Your task to perform on an android device: check battery use Image 0: 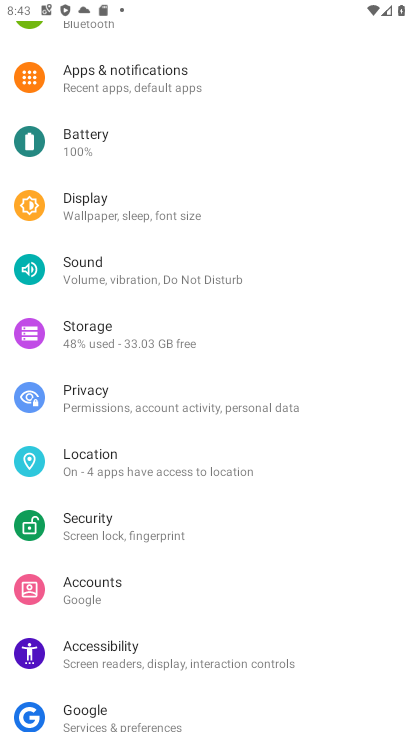
Step 0: press home button
Your task to perform on an android device: check battery use Image 1: 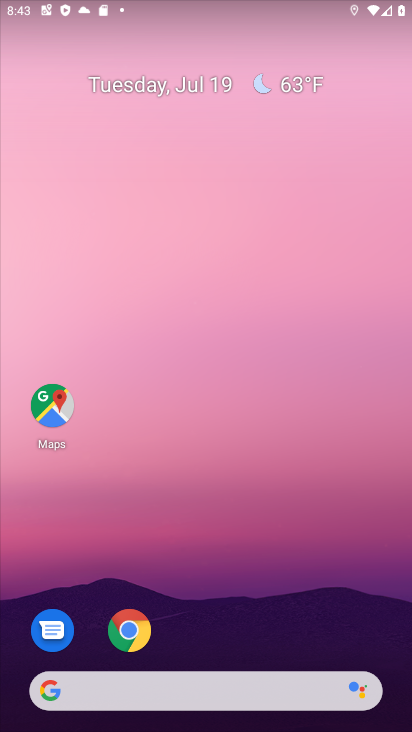
Step 1: drag from (187, 697) to (193, 229)
Your task to perform on an android device: check battery use Image 2: 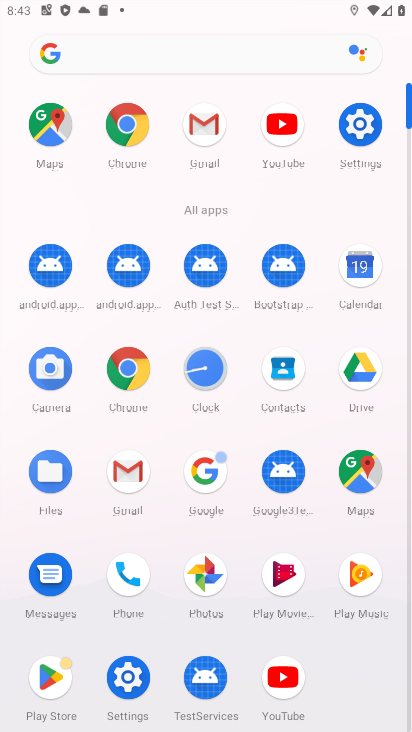
Step 2: click (359, 125)
Your task to perform on an android device: check battery use Image 3: 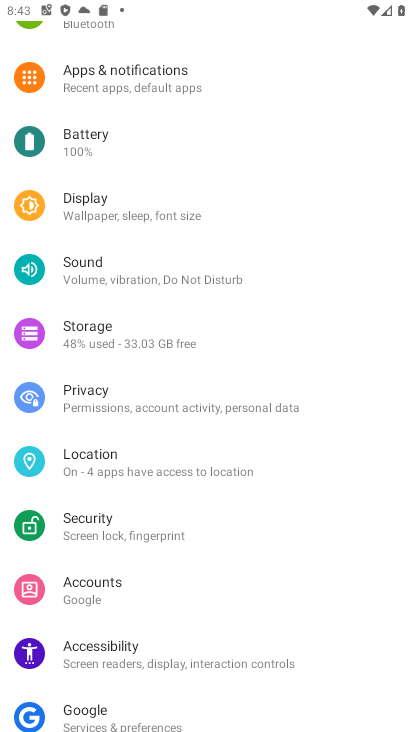
Step 3: click (74, 145)
Your task to perform on an android device: check battery use Image 4: 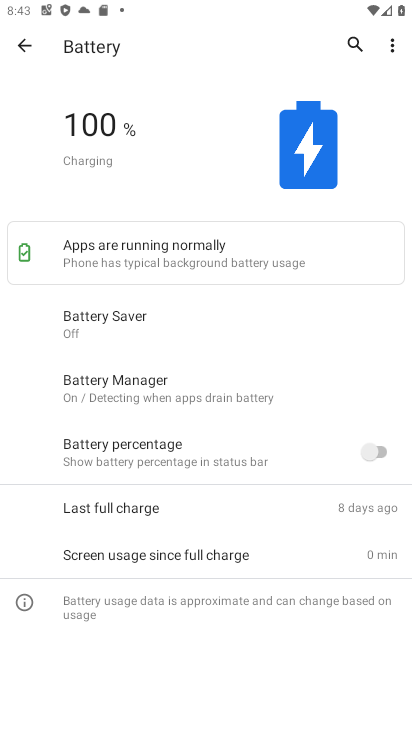
Step 4: click (394, 42)
Your task to perform on an android device: check battery use Image 5: 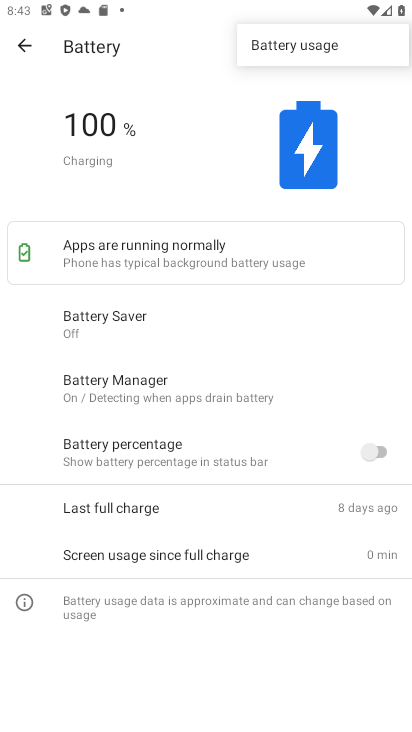
Step 5: click (329, 48)
Your task to perform on an android device: check battery use Image 6: 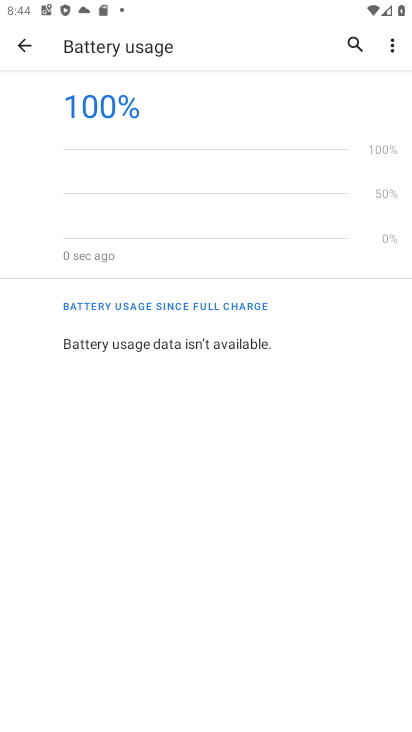
Step 6: task complete